Your task to perform on an android device: open app "Airtel Thanks" (install if not already installed) and enter user name: "acclaimed@inbox.com" and password: "dichotomize" Image 0: 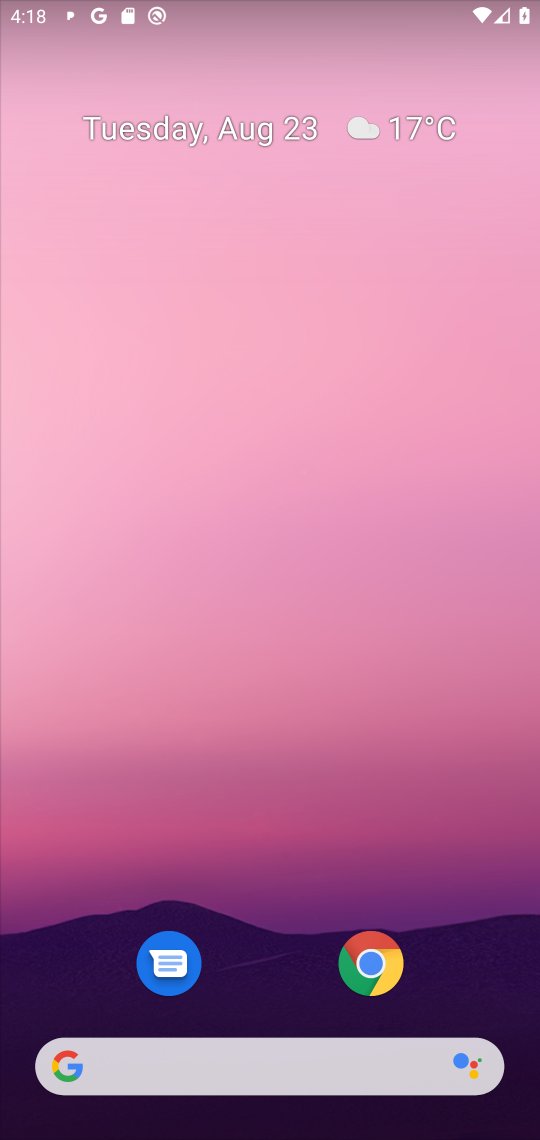
Step 0: press home button
Your task to perform on an android device: open app "Airtel Thanks" (install if not already installed) and enter user name: "acclaimed@inbox.com" and password: "dichotomize" Image 1: 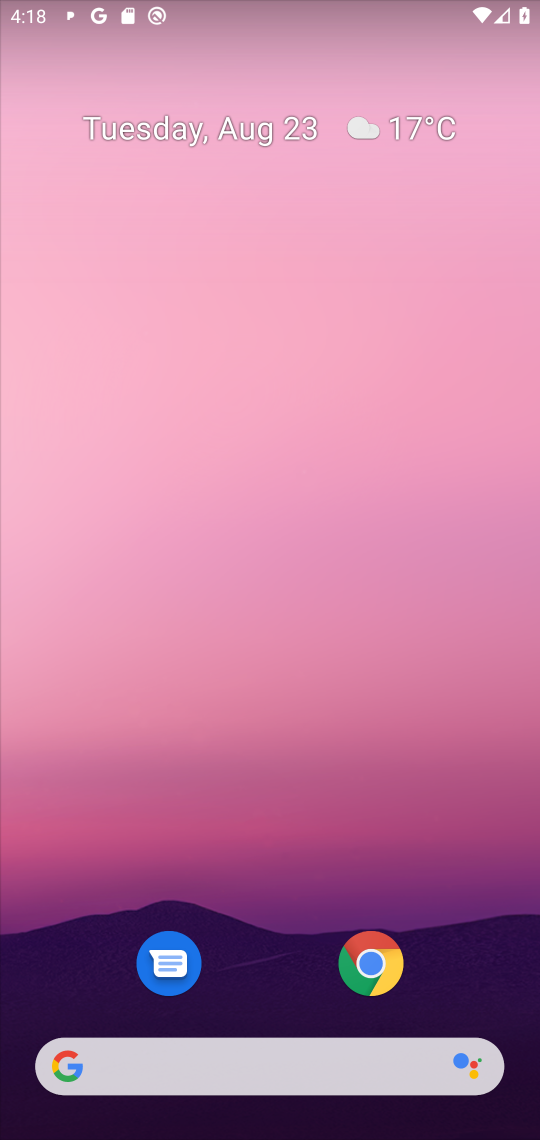
Step 1: drag from (281, 1013) to (285, 71)
Your task to perform on an android device: open app "Airtel Thanks" (install if not already installed) and enter user name: "acclaimed@inbox.com" and password: "dichotomize" Image 2: 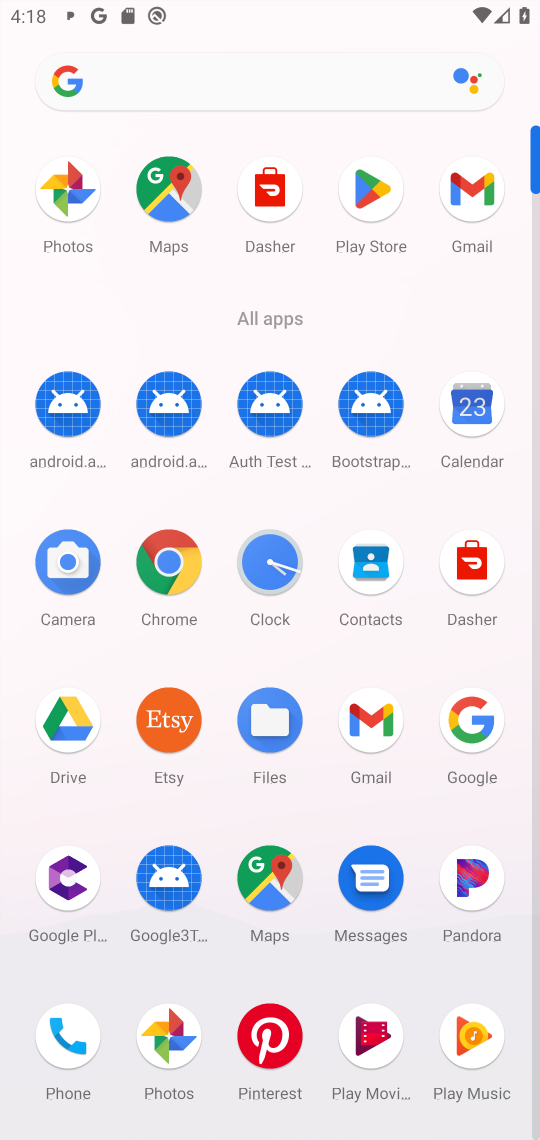
Step 2: click (365, 187)
Your task to perform on an android device: open app "Airtel Thanks" (install if not already installed) and enter user name: "acclaimed@inbox.com" and password: "dichotomize" Image 3: 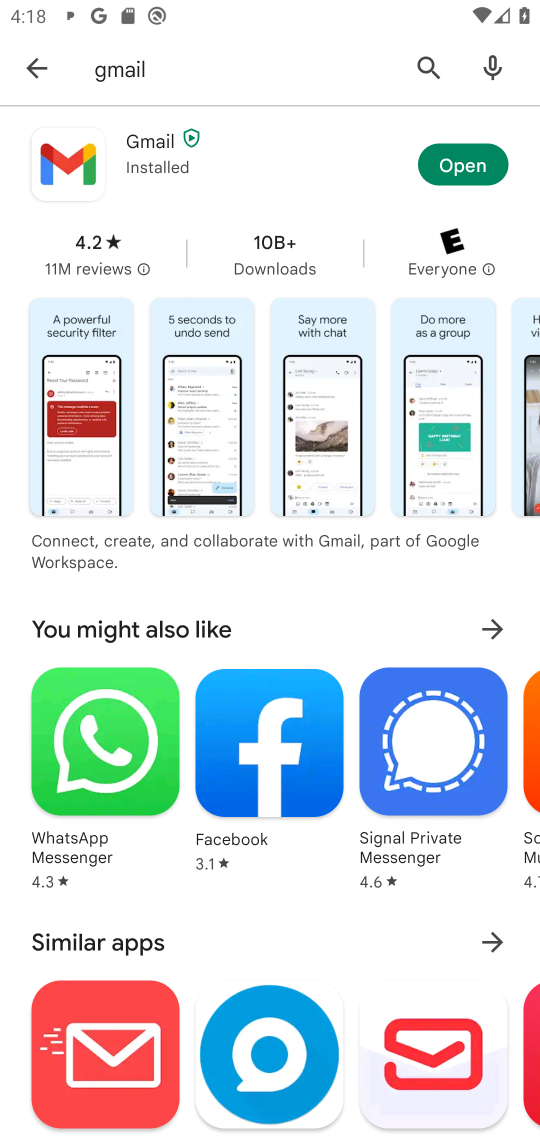
Step 3: click (420, 63)
Your task to perform on an android device: open app "Airtel Thanks" (install if not already installed) and enter user name: "acclaimed@inbox.com" and password: "dichotomize" Image 4: 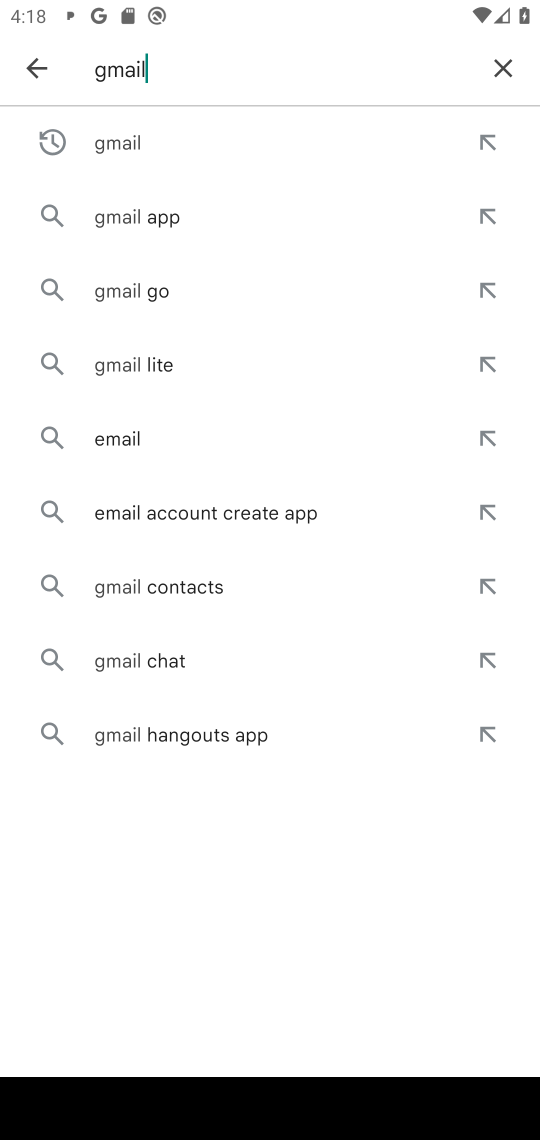
Step 4: click (496, 65)
Your task to perform on an android device: open app "Airtel Thanks" (install if not already installed) and enter user name: "acclaimed@inbox.com" and password: "dichotomize" Image 5: 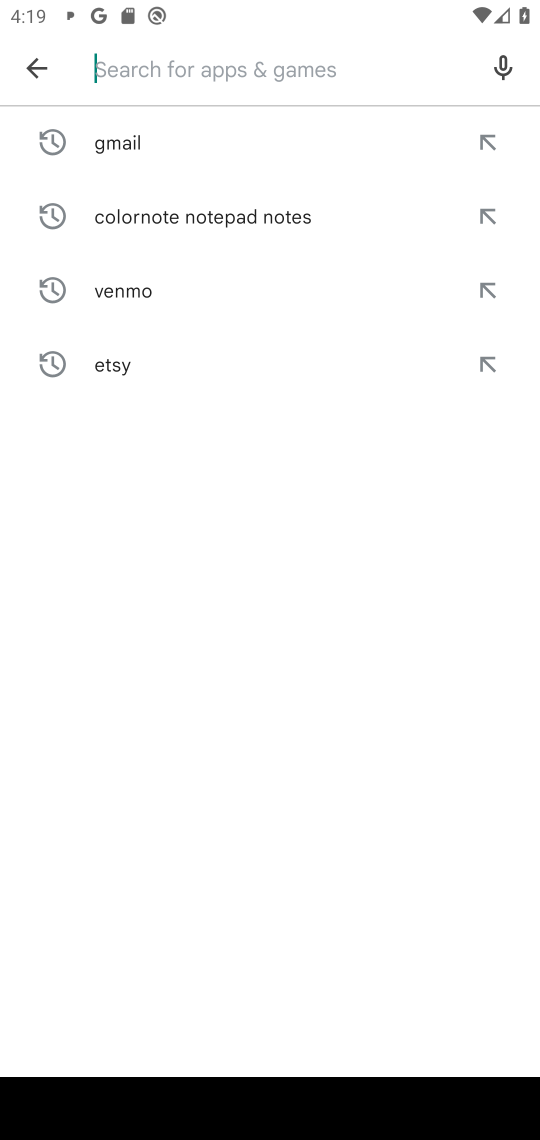
Step 5: type "Airtel Thanks"
Your task to perform on an android device: open app "Airtel Thanks" (install if not already installed) and enter user name: "acclaimed@inbox.com" and password: "dichotomize" Image 6: 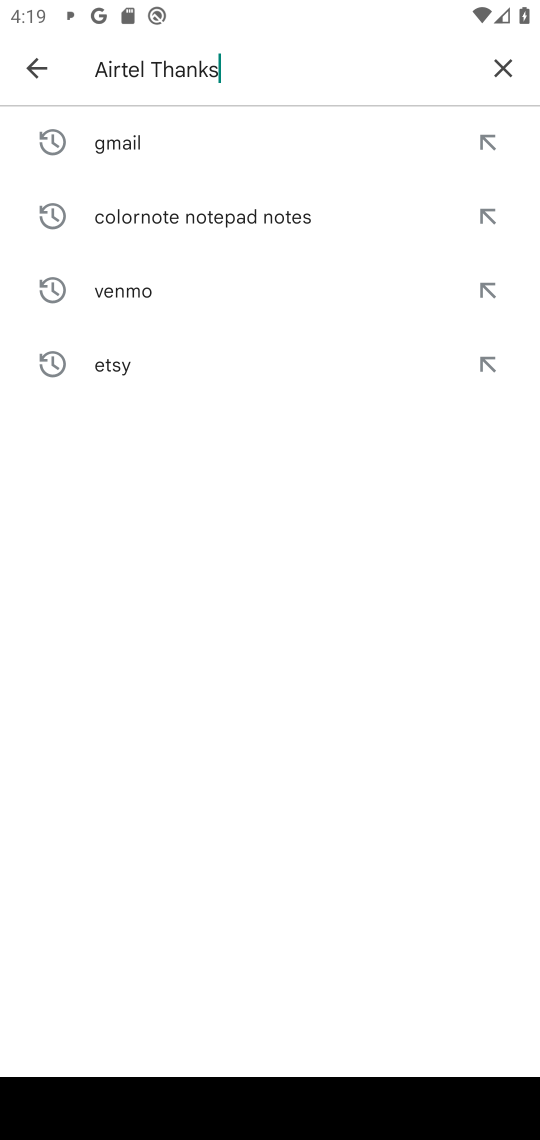
Step 6: type ""
Your task to perform on an android device: open app "Airtel Thanks" (install if not already installed) and enter user name: "acclaimed@inbox.com" and password: "dichotomize" Image 7: 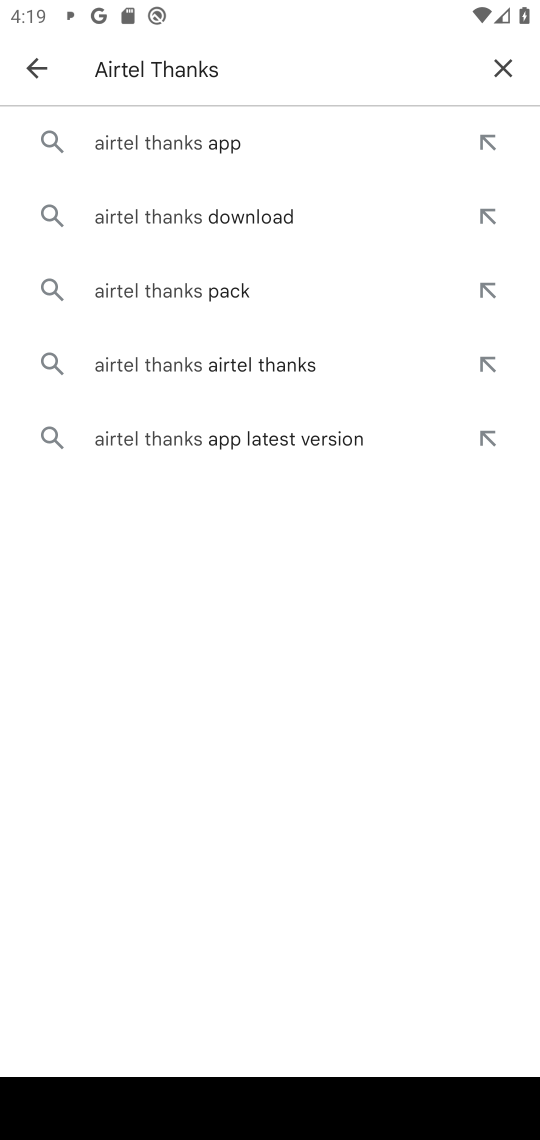
Step 7: click (224, 140)
Your task to perform on an android device: open app "Airtel Thanks" (install if not already installed) and enter user name: "acclaimed@inbox.com" and password: "dichotomize" Image 8: 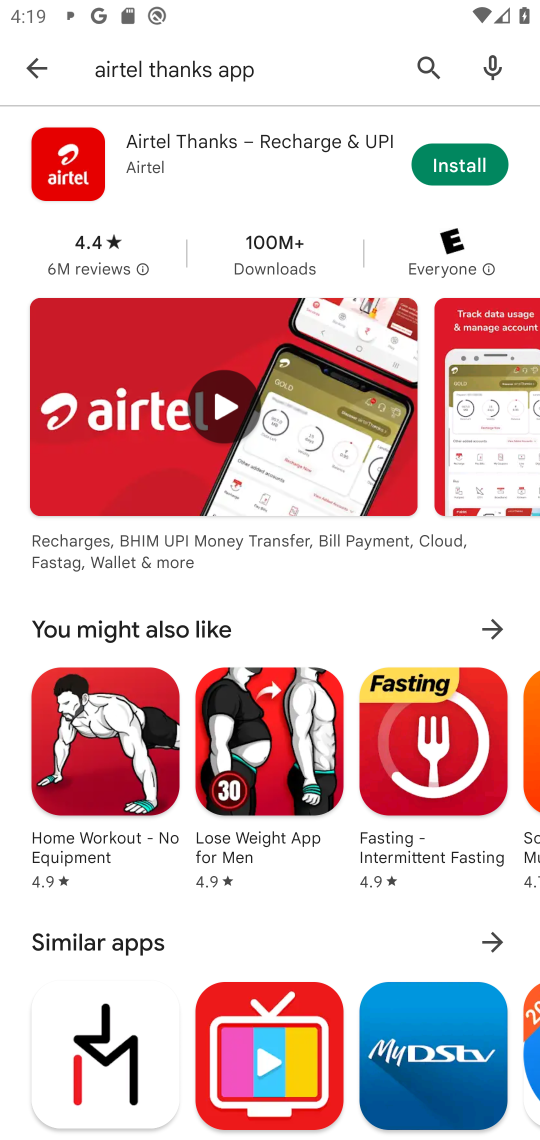
Step 8: click (466, 161)
Your task to perform on an android device: open app "Airtel Thanks" (install if not already installed) and enter user name: "acclaimed@inbox.com" and password: "dichotomize" Image 9: 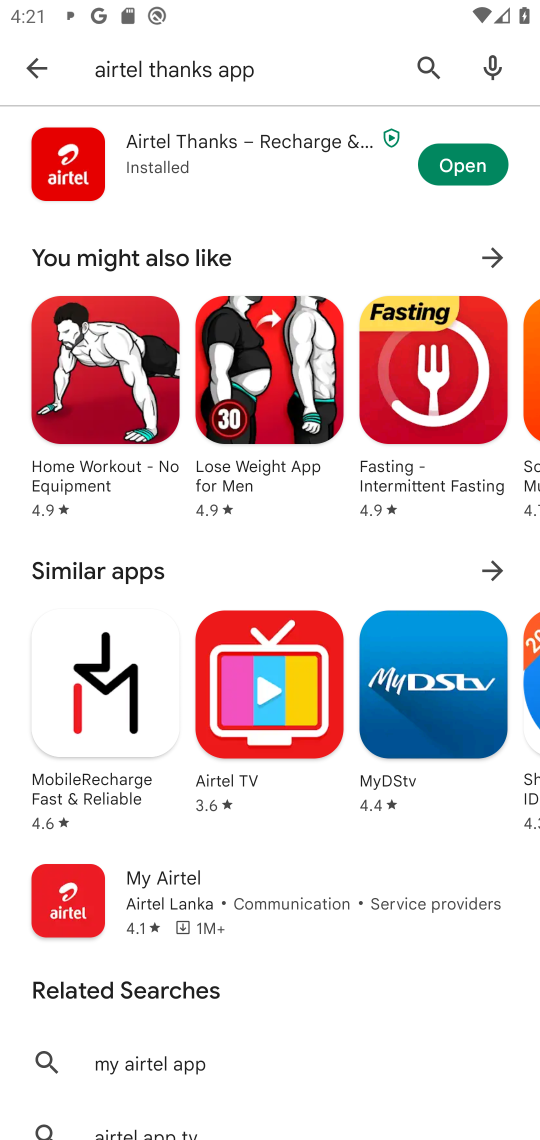
Step 9: click (450, 158)
Your task to perform on an android device: open app "Airtel Thanks" (install if not already installed) and enter user name: "acclaimed@inbox.com" and password: "dichotomize" Image 10: 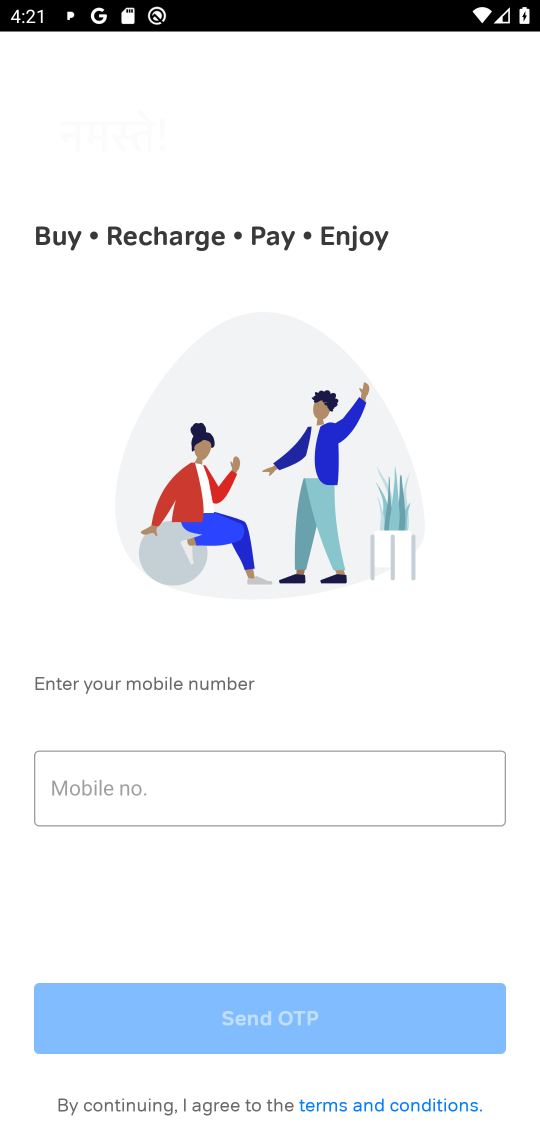
Step 10: task complete